Your task to perform on an android device: change the clock style Image 0: 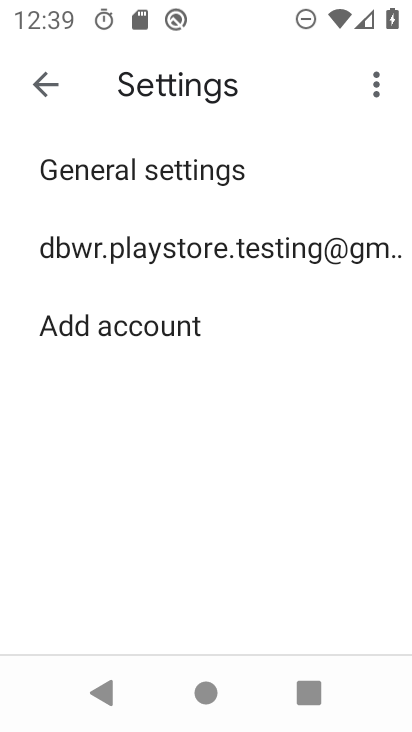
Step 0: press home button
Your task to perform on an android device: change the clock style Image 1: 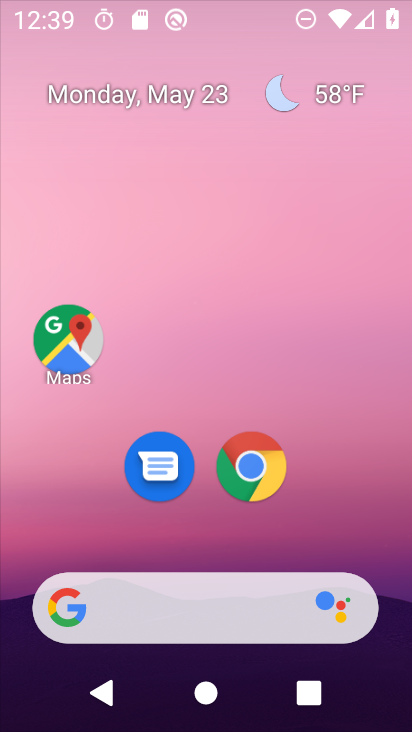
Step 1: drag from (221, 526) to (253, 36)
Your task to perform on an android device: change the clock style Image 2: 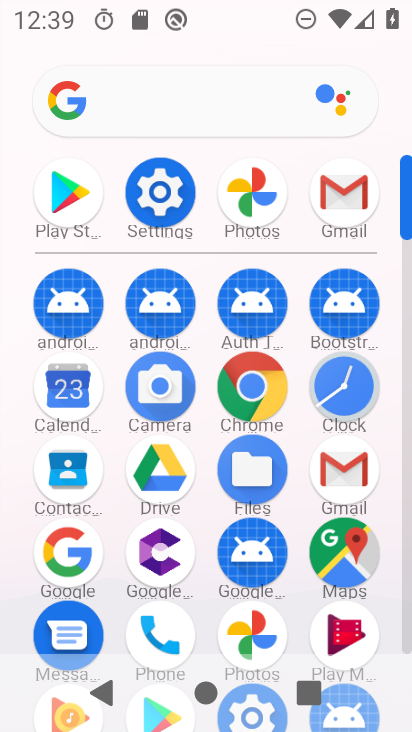
Step 2: click (343, 373)
Your task to perform on an android device: change the clock style Image 3: 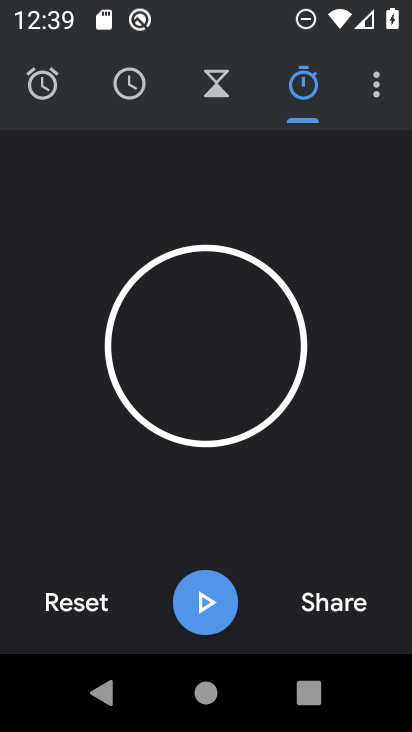
Step 3: click (371, 79)
Your task to perform on an android device: change the clock style Image 4: 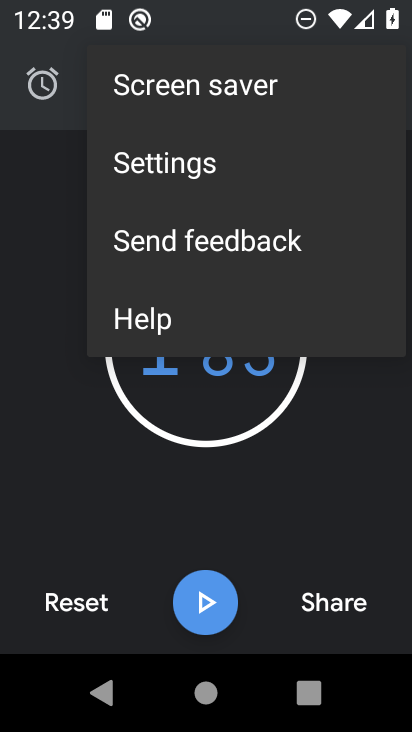
Step 4: click (229, 146)
Your task to perform on an android device: change the clock style Image 5: 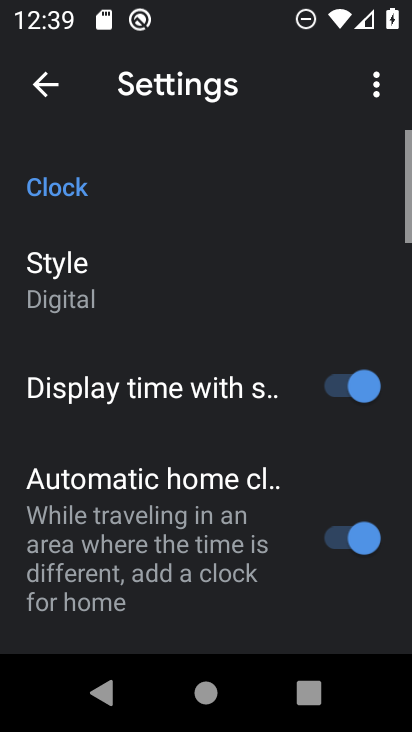
Step 5: click (156, 308)
Your task to perform on an android device: change the clock style Image 6: 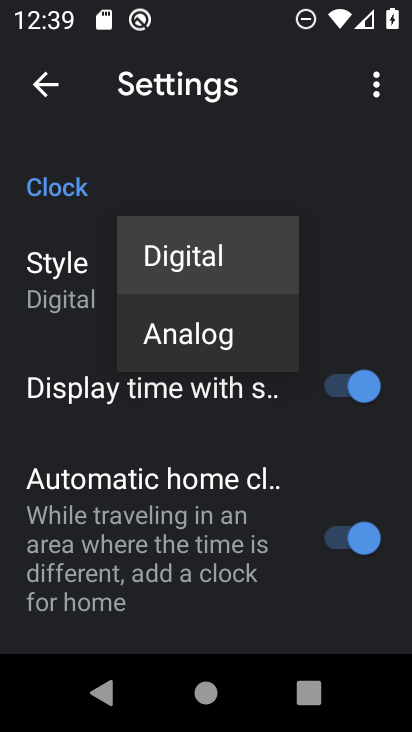
Step 6: click (202, 341)
Your task to perform on an android device: change the clock style Image 7: 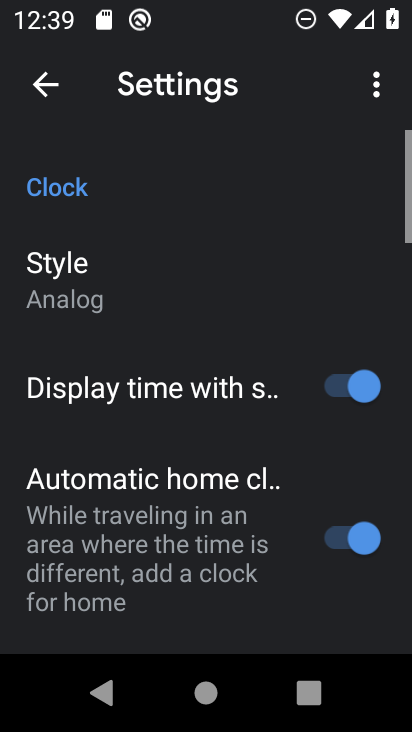
Step 7: task complete